Your task to perform on an android device: change notification settings in the gmail app Image 0: 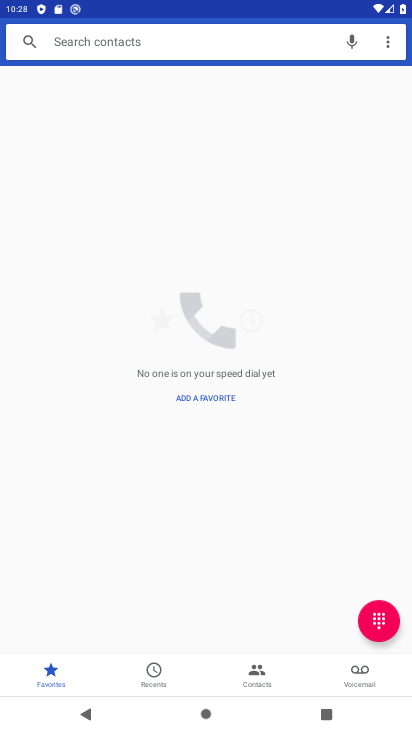
Step 0: press home button
Your task to perform on an android device: change notification settings in the gmail app Image 1: 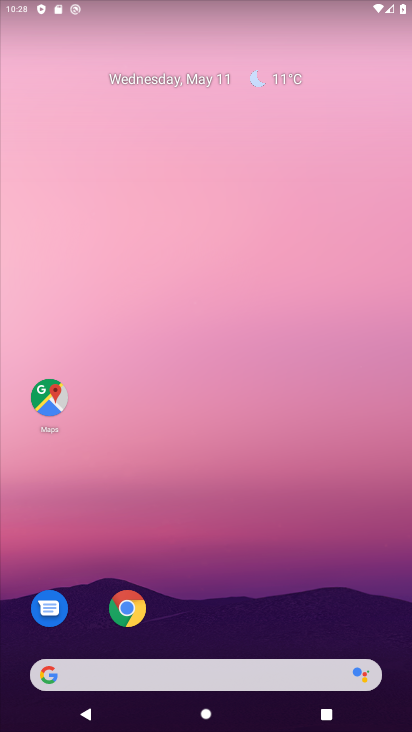
Step 1: drag from (165, 644) to (273, 204)
Your task to perform on an android device: change notification settings in the gmail app Image 2: 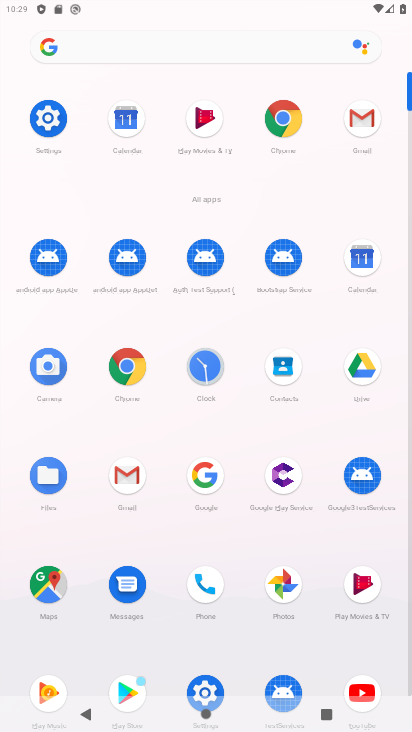
Step 2: click (129, 478)
Your task to perform on an android device: change notification settings in the gmail app Image 3: 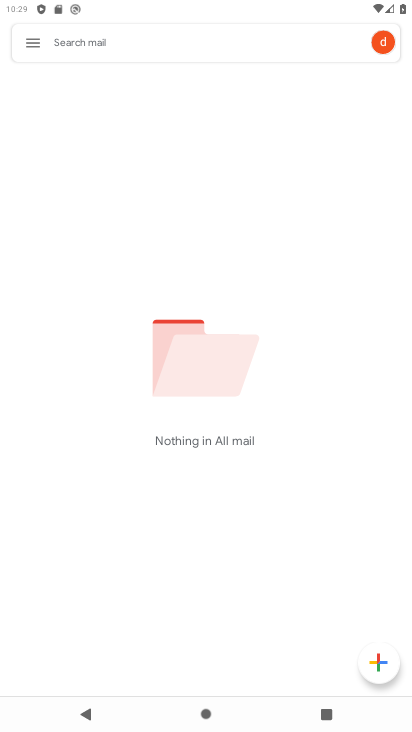
Step 3: click (39, 43)
Your task to perform on an android device: change notification settings in the gmail app Image 4: 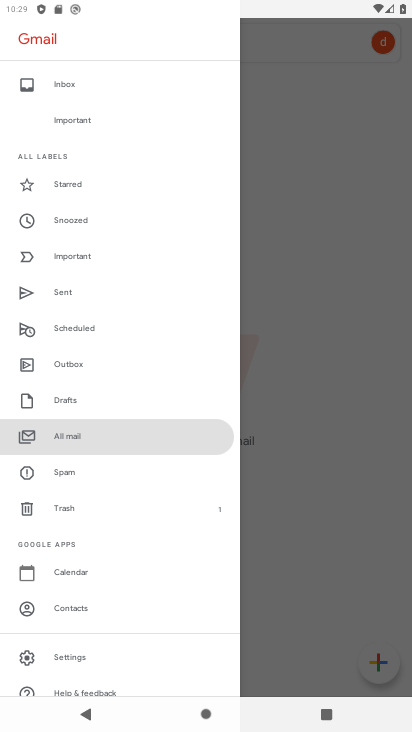
Step 4: click (89, 658)
Your task to perform on an android device: change notification settings in the gmail app Image 5: 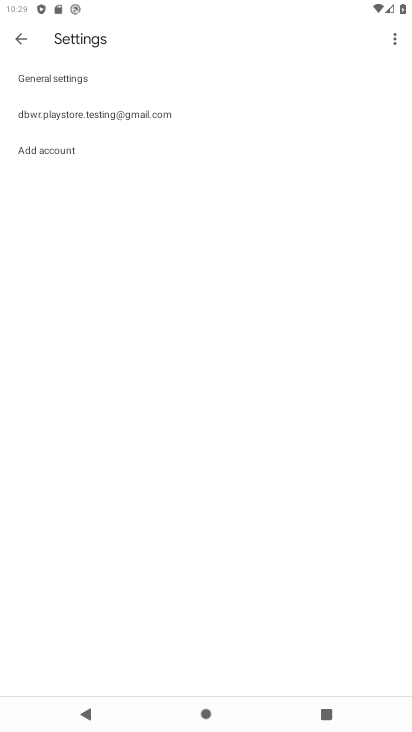
Step 5: click (147, 115)
Your task to perform on an android device: change notification settings in the gmail app Image 6: 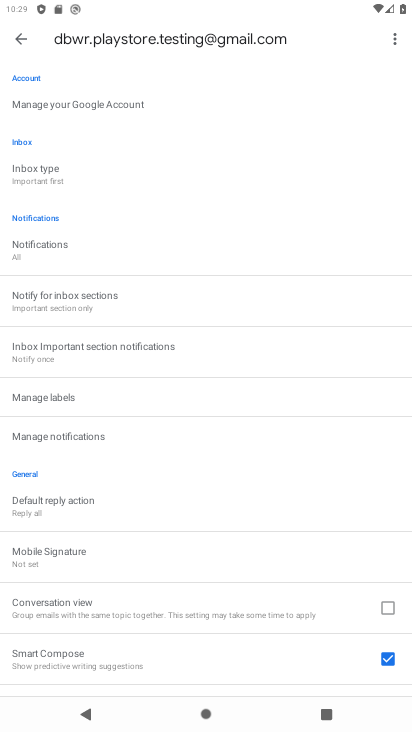
Step 6: click (96, 257)
Your task to perform on an android device: change notification settings in the gmail app Image 7: 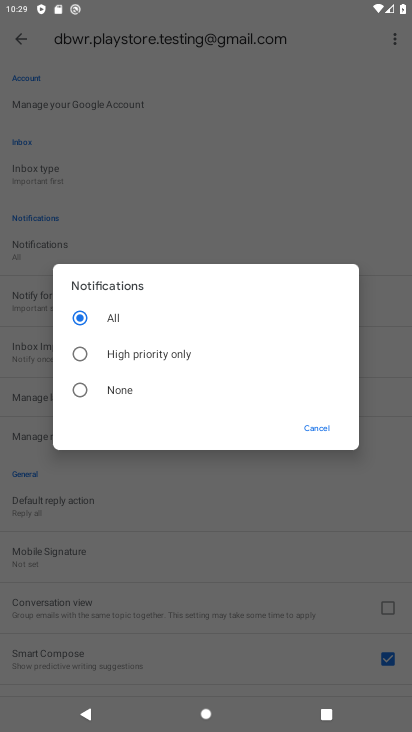
Step 7: click (100, 390)
Your task to perform on an android device: change notification settings in the gmail app Image 8: 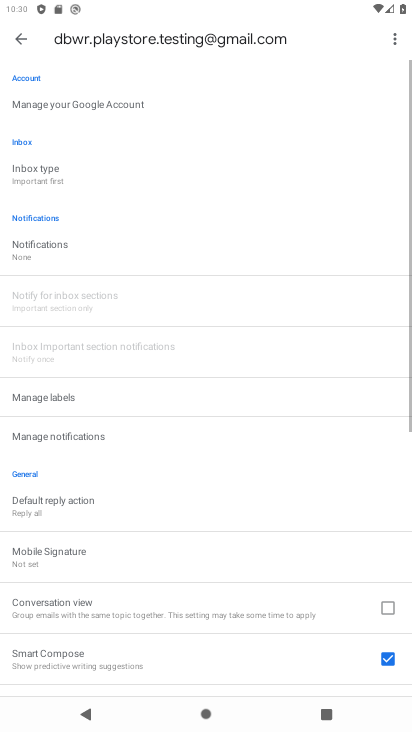
Step 8: task complete